Your task to perform on an android device: Open Chrome and go to settings Image 0: 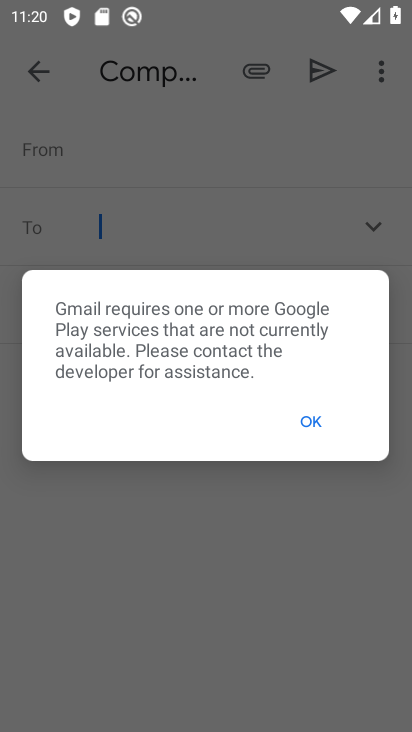
Step 0: drag from (186, 654) to (205, 280)
Your task to perform on an android device: Open Chrome and go to settings Image 1: 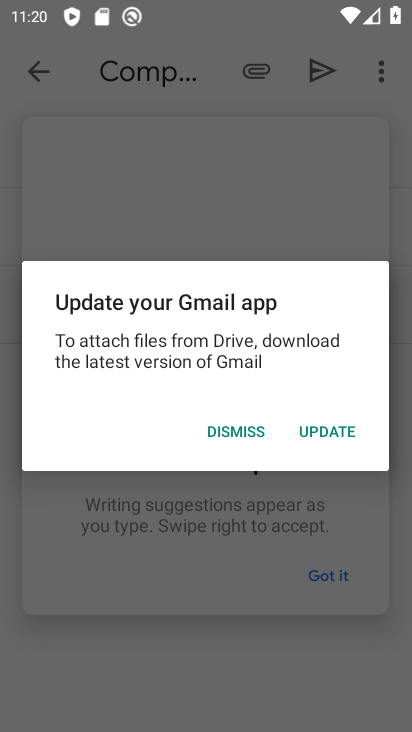
Step 1: press home button
Your task to perform on an android device: Open Chrome and go to settings Image 2: 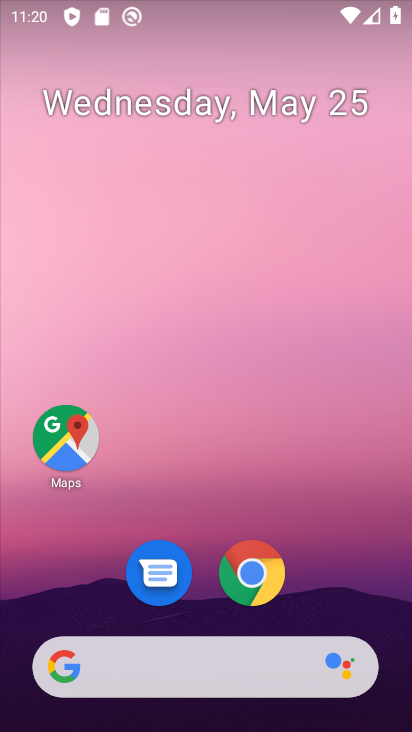
Step 2: click (272, 583)
Your task to perform on an android device: Open Chrome and go to settings Image 3: 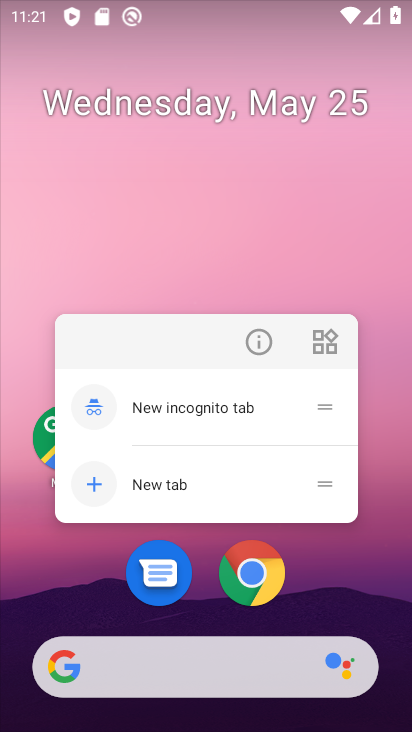
Step 3: click (272, 583)
Your task to perform on an android device: Open Chrome and go to settings Image 4: 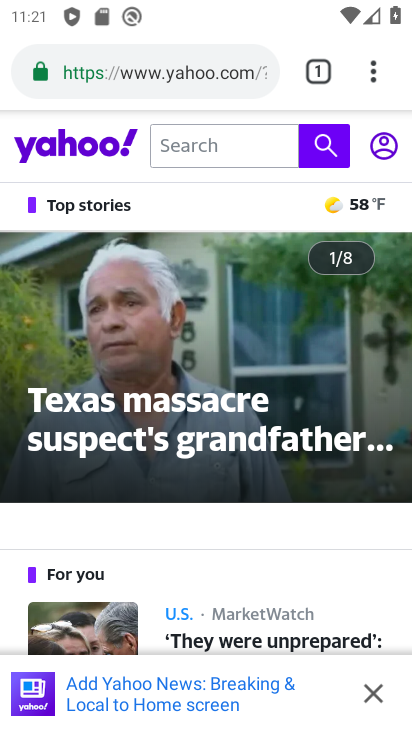
Step 4: task complete